Your task to perform on an android device: empty trash in the gmail app Image 0: 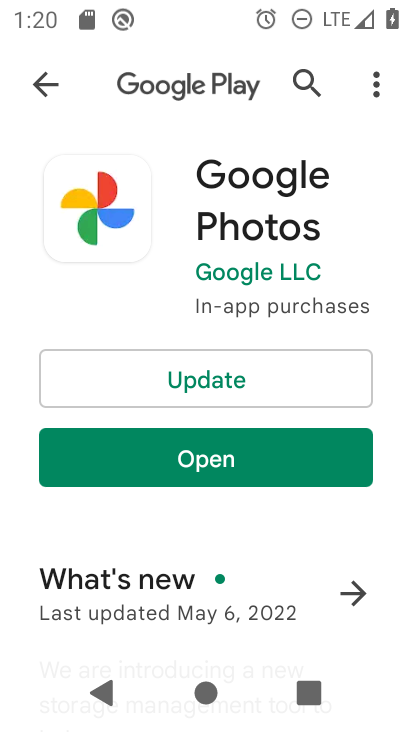
Step 0: press home button
Your task to perform on an android device: empty trash in the gmail app Image 1: 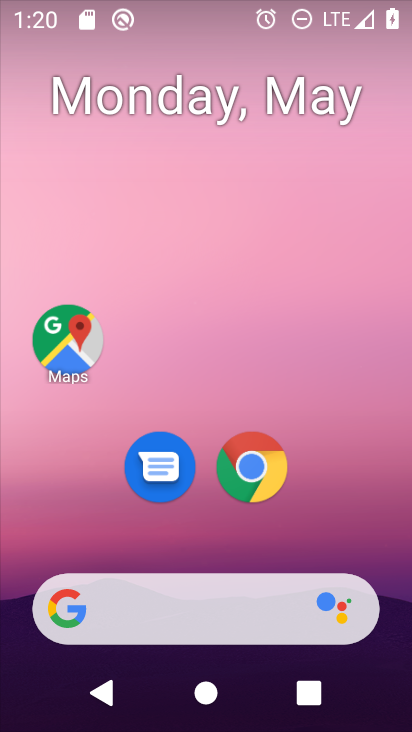
Step 1: drag from (394, 553) to (409, 1)
Your task to perform on an android device: empty trash in the gmail app Image 2: 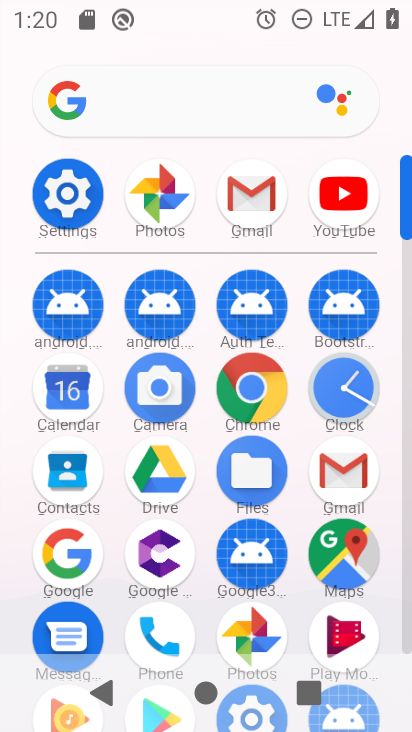
Step 2: click (250, 208)
Your task to perform on an android device: empty trash in the gmail app Image 3: 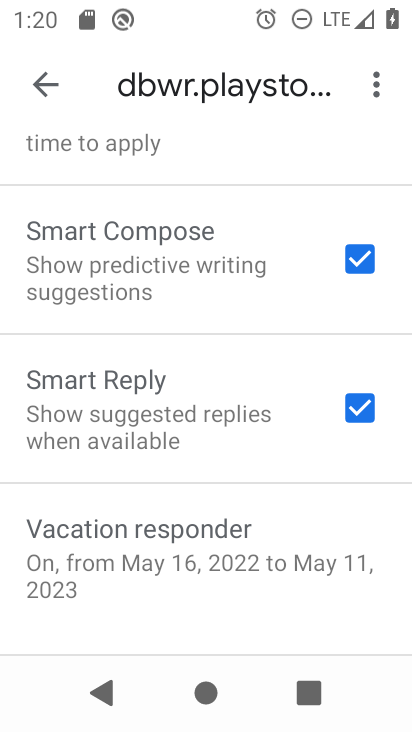
Step 3: click (41, 86)
Your task to perform on an android device: empty trash in the gmail app Image 4: 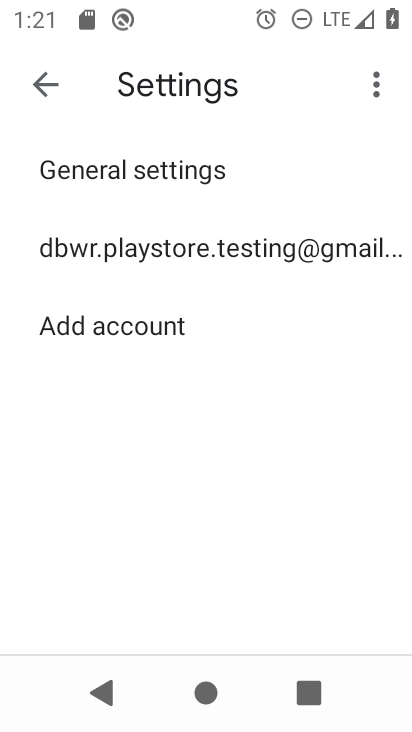
Step 4: click (41, 86)
Your task to perform on an android device: empty trash in the gmail app Image 5: 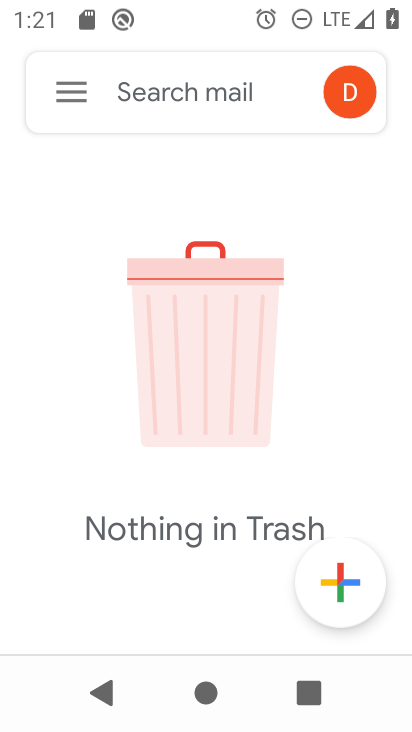
Step 5: task complete